Your task to perform on an android device: turn off notifications settings in the gmail app Image 0: 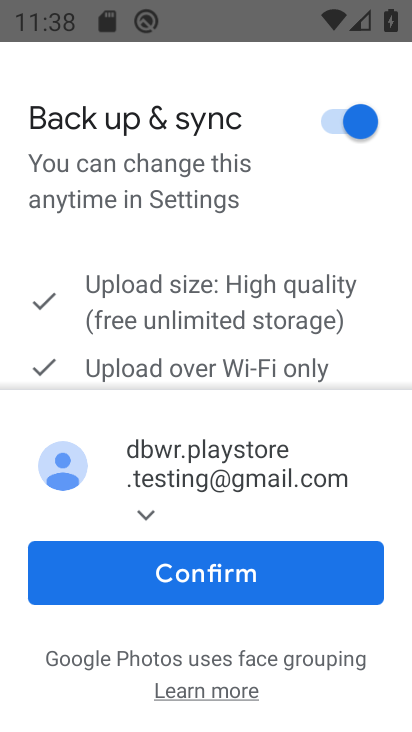
Step 0: press home button
Your task to perform on an android device: turn off notifications settings in the gmail app Image 1: 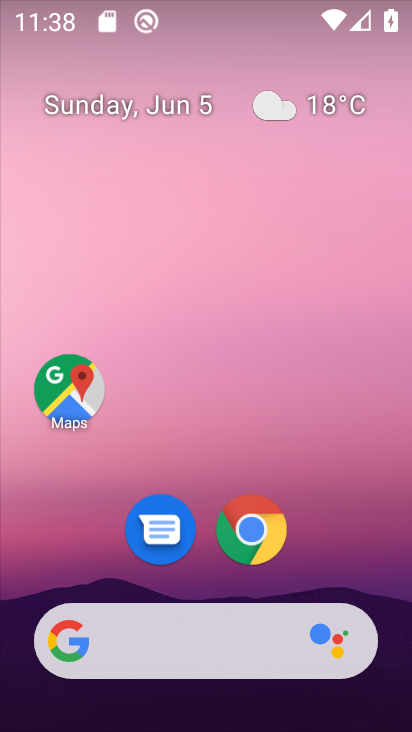
Step 1: drag from (321, 568) to (253, 0)
Your task to perform on an android device: turn off notifications settings in the gmail app Image 2: 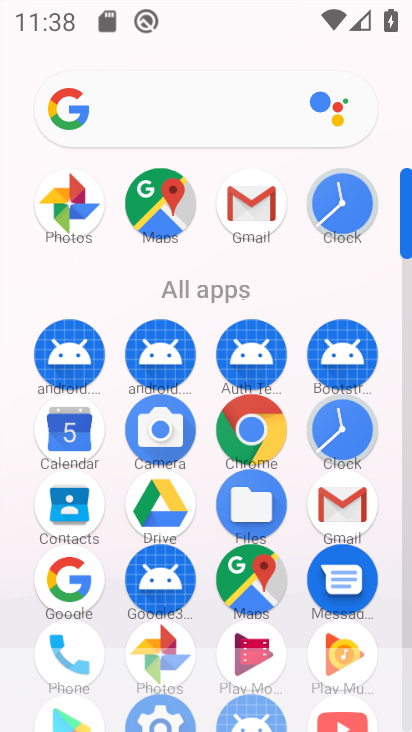
Step 2: click (350, 498)
Your task to perform on an android device: turn off notifications settings in the gmail app Image 3: 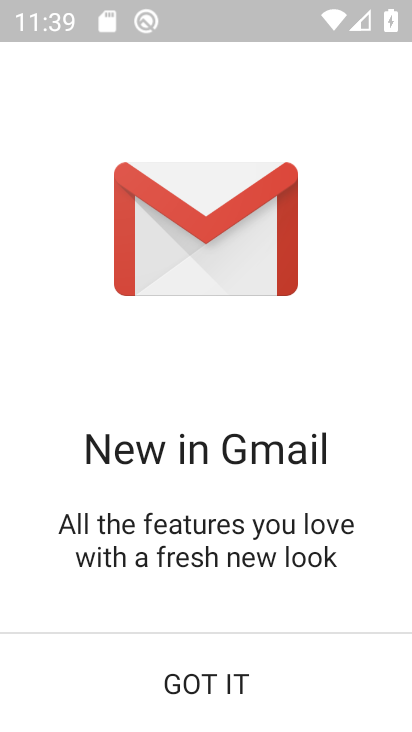
Step 3: click (275, 692)
Your task to perform on an android device: turn off notifications settings in the gmail app Image 4: 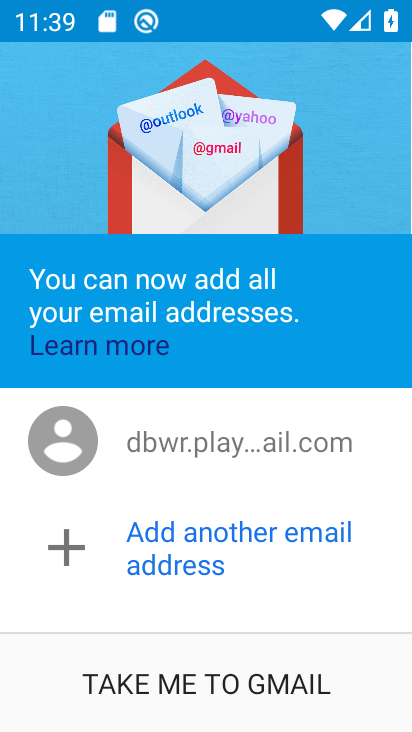
Step 4: click (120, 697)
Your task to perform on an android device: turn off notifications settings in the gmail app Image 5: 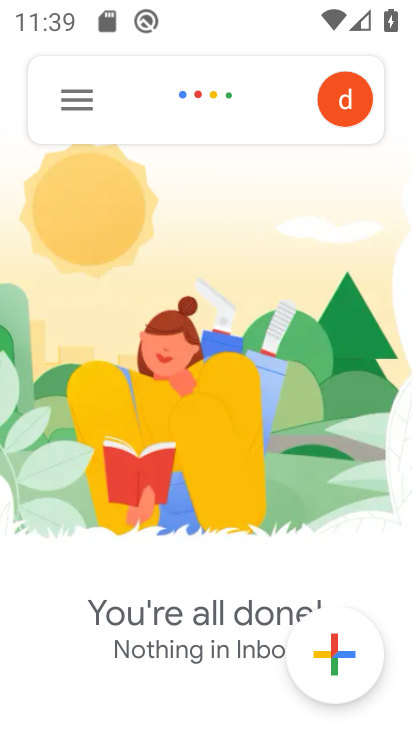
Step 5: click (79, 100)
Your task to perform on an android device: turn off notifications settings in the gmail app Image 6: 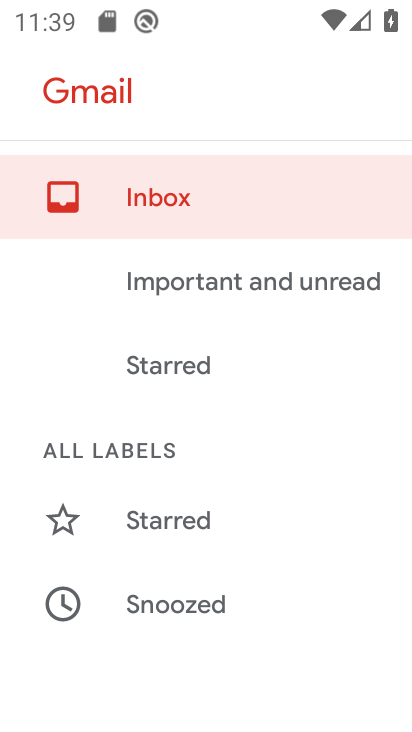
Step 6: drag from (282, 632) to (236, 137)
Your task to perform on an android device: turn off notifications settings in the gmail app Image 7: 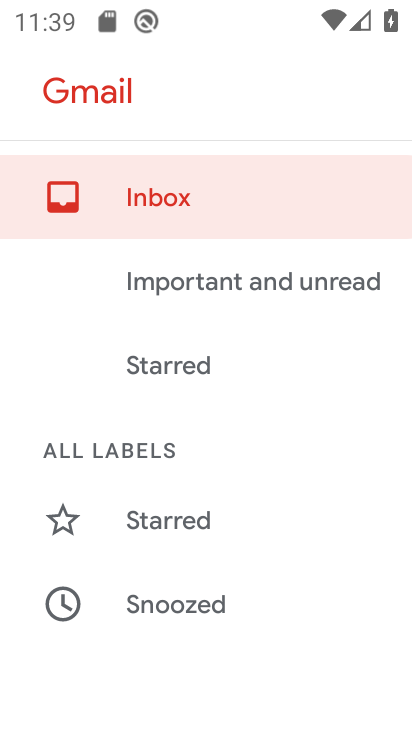
Step 7: drag from (143, 615) to (142, 100)
Your task to perform on an android device: turn off notifications settings in the gmail app Image 8: 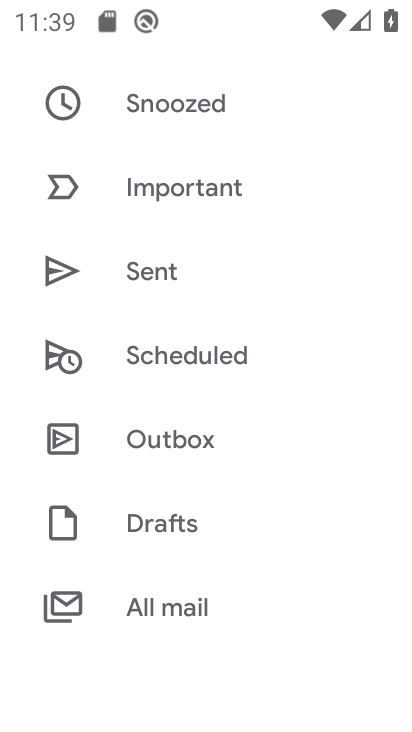
Step 8: drag from (174, 588) to (199, 18)
Your task to perform on an android device: turn off notifications settings in the gmail app Image 9: 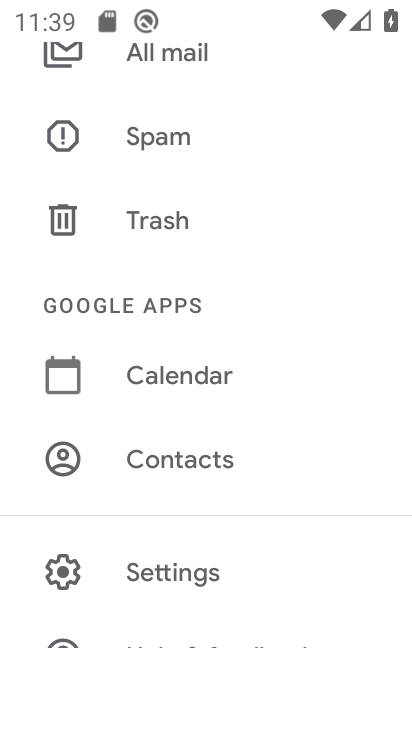
Step 9: click (156, 576)
Your task to perform on an android device: turn off notifications settings in the gmail app Image 10: 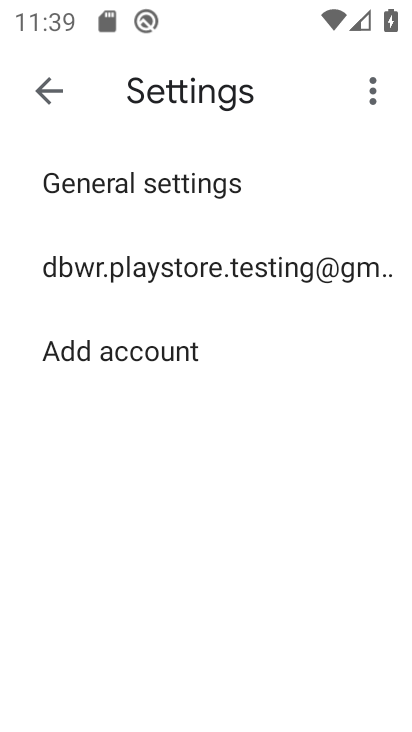
Step 10: click (201, 275)
Your task to perform on an android device: turn off notifications settings in the gmail app Image 11: 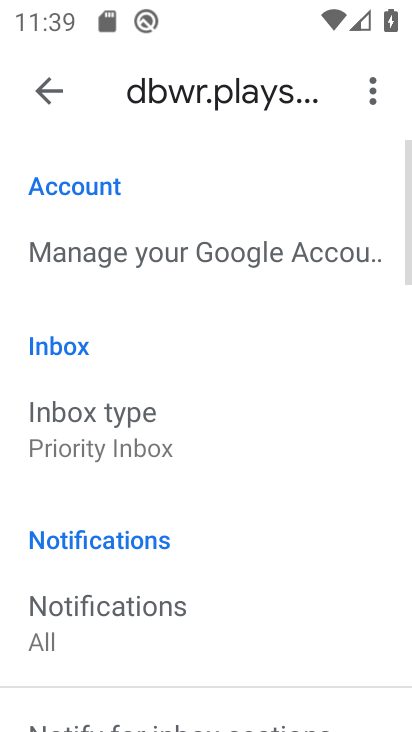
Step 11: drag from (226, 657) to (265, 182)
Your task to perform on an android device: turn off notifications settings in the gmail app Image 12: 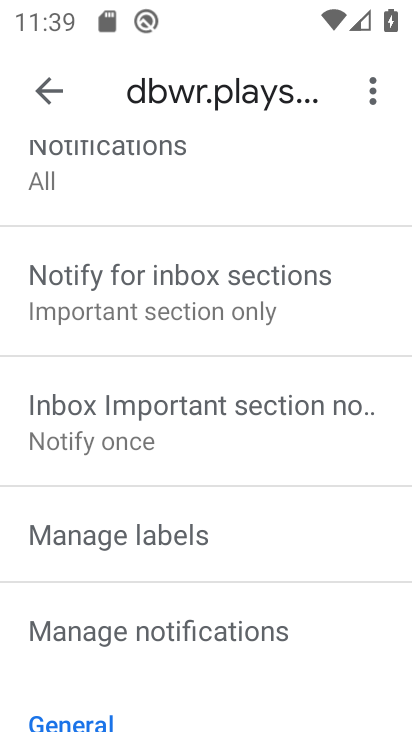
Step 12: drag from (161, 673) to (145, 453)
Your task to perform on an android device: turn off notifications settings in the gmail app Image 13: 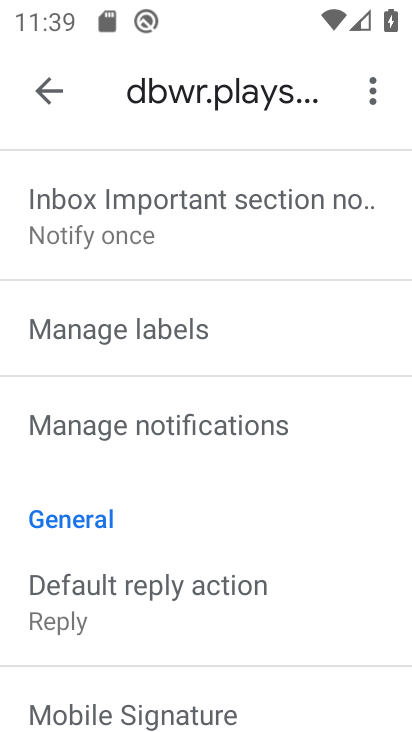
Step 13: drag from (191, 298) to (232, 388)
Your task to perform on an android device: turn off notifications settings in the gmail app Image 14: 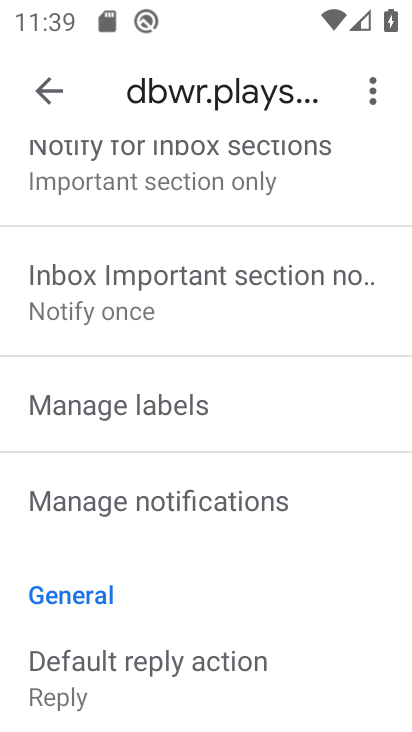
Step 14: click (150, 513)
Your task to perform on an android device: turn off notifications settings in the gmail app Image 15: 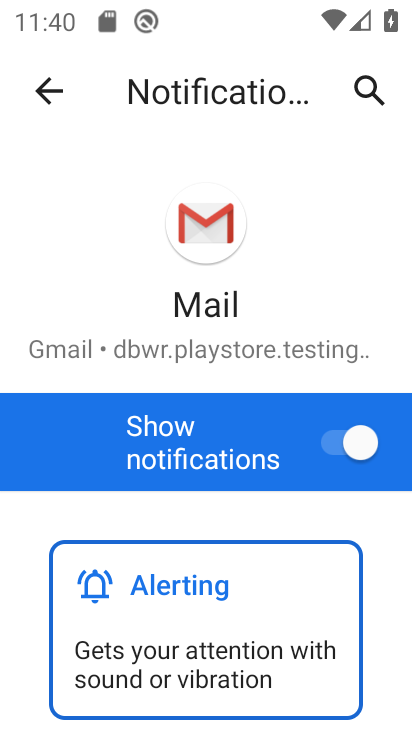
Step 15: click (342, 445)
Your task to perform on an android device: turn off notifications settings in the gmail app Image 16: 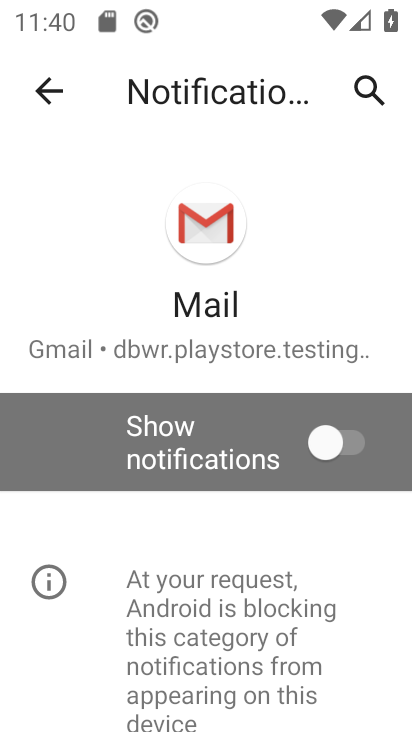
Step 16: task complete